Your task to perform on an android device: snooze an email in the gmail app Image 0: 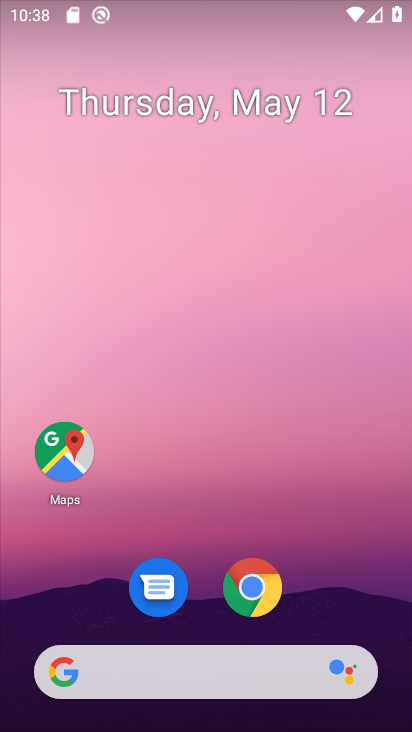
Step 0: click (325, 42)
Your task to perform on an android device: snooze an email in the gmail app Image 1: 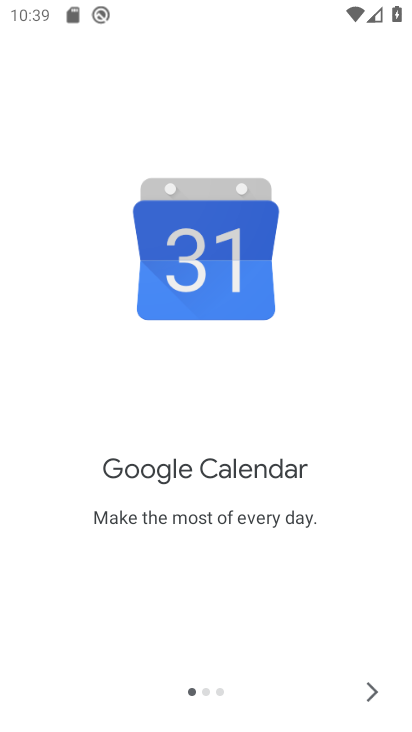
Step 1: press home button
Your task to perform on an android device: snooze an email in the gmail app Image 2: 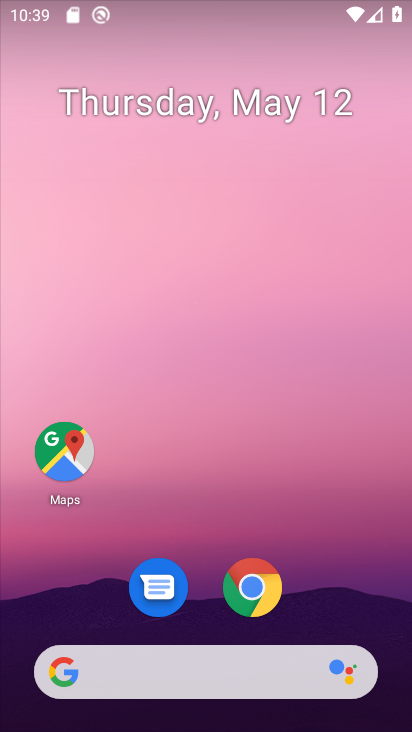
Step 2: drag from (286, 453) to (310, 266)
Your task to perform on an android device: snooze an email in the gmail app Image 3: 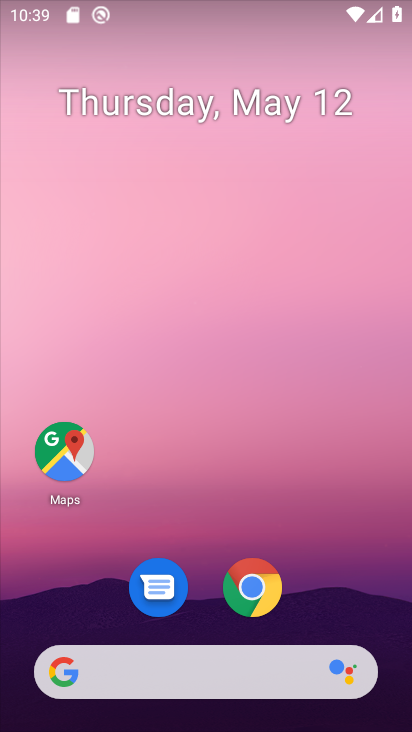
Step 3: drag from (295, 572) to (283, 117)
Your task to perform on an android device: snooze an email in the gmail app Image 4: 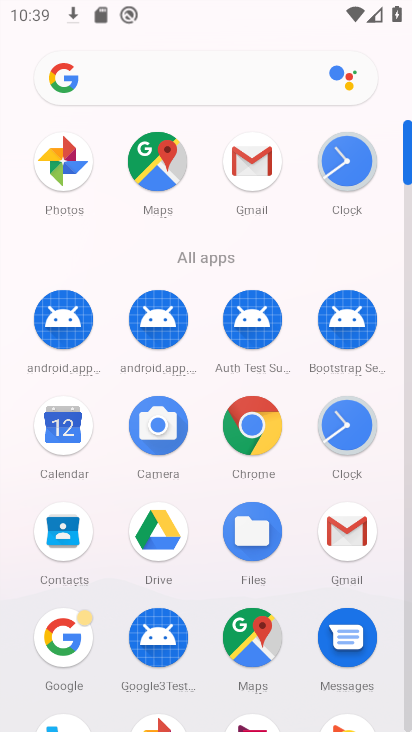
Step 4: click (258, 150)
Your task to perform on an android device: snooze an email in the gmail app Image 5: 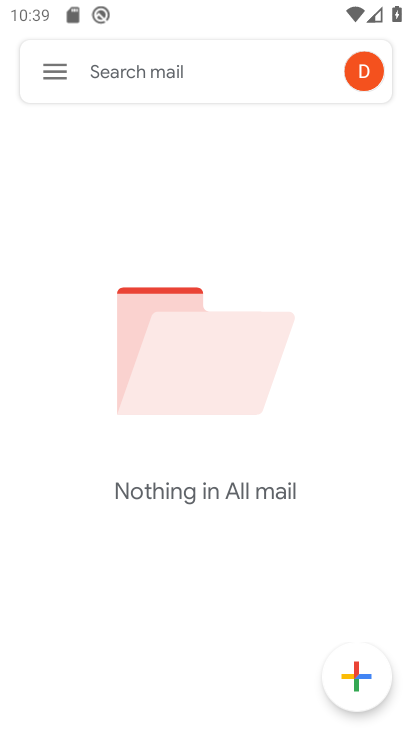
Step 5: task complete